Your task to perform on an android device: turn off translation in the chrome app Image 0: 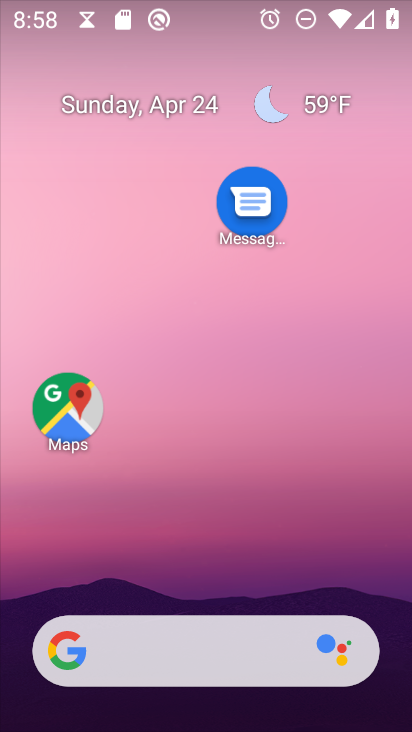
Step 0: drag from (180, 560) to (295, 27)
Your task to perform on an android device: turn off translation in the chrome app Image 1: 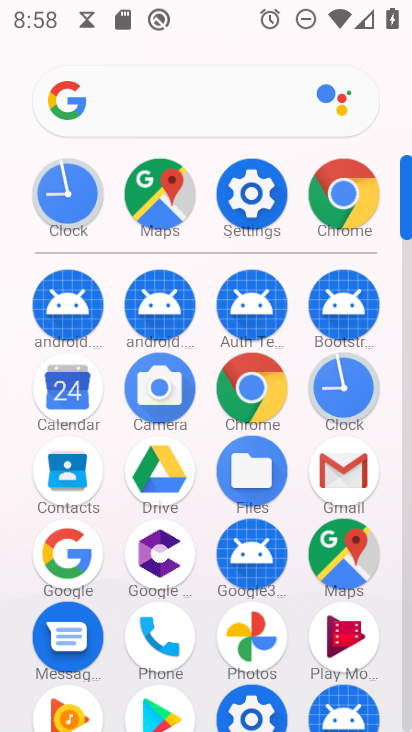
Step 1: click (253, 389)
Your task to perform on an android device: turn off translation in the chrome app Image 2: 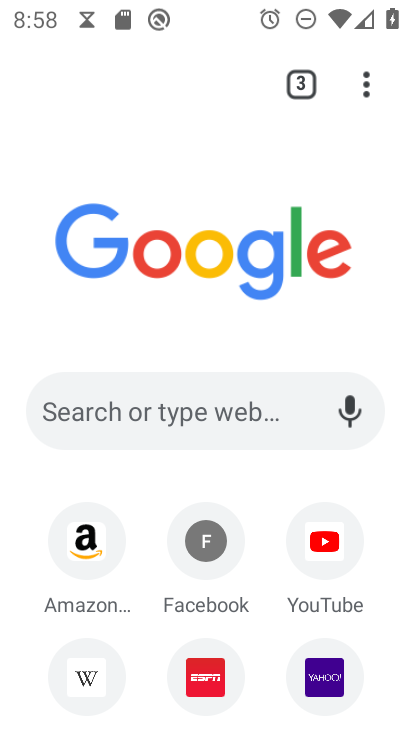
Step 2: drag from (366, 93) to (115, 593)
Your task to perform on an android device: turn off translation in the chrome app Image 3: 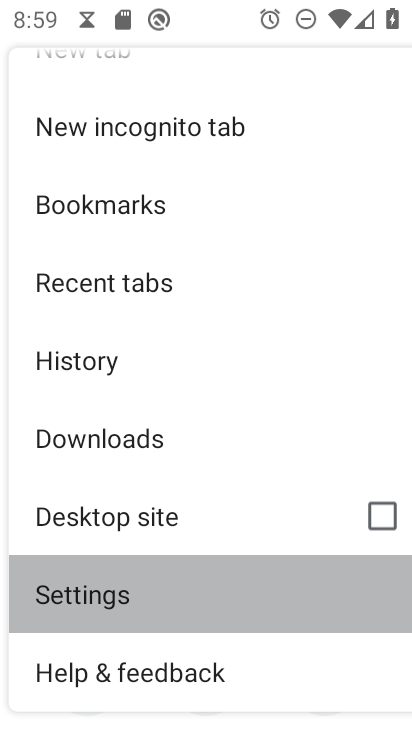
Step 3: click (115, 593)
Your task to perform on an android device: turn off translation in the chrome app Image 4: 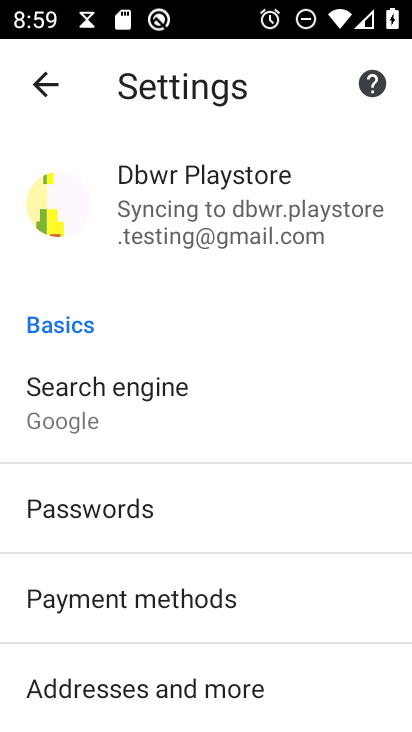
Step 4: drag from (101, 653) to (316, 206)
Your task to perform on an android device: turn off translation in the chrome app Image 5: 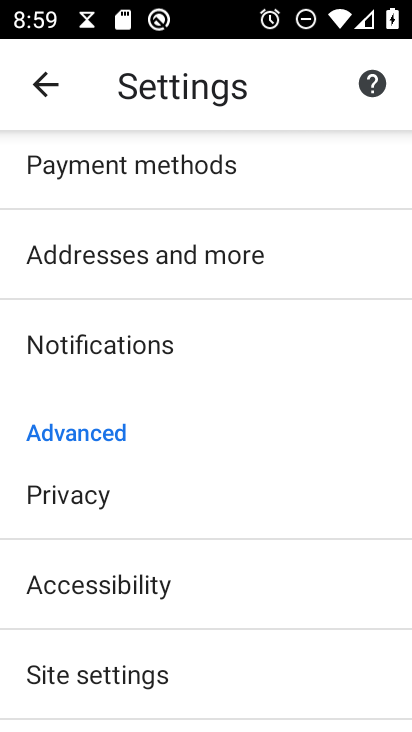
Step 5: drag from (167, 682) to (342, 198)
Your task to perform on an android device: turn off translation in the chrome app Image 6: 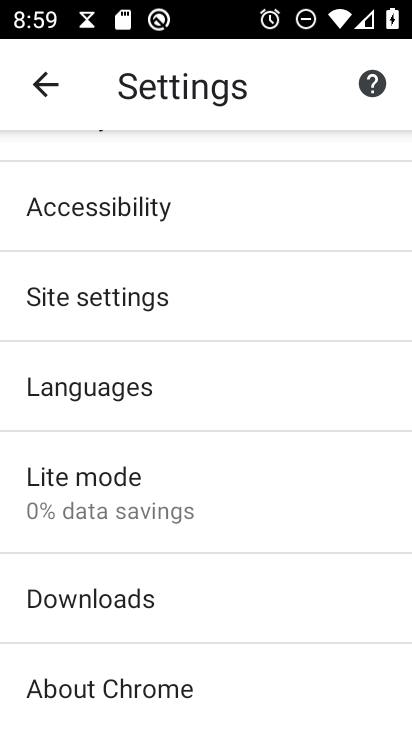
Step 6: click (142, 389)
Your task to perform on an android device: turn off translation in the chrome app Image 7: 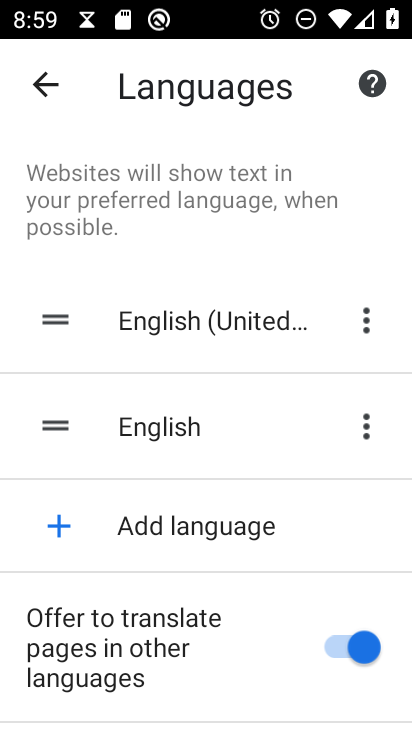
Step 7: click (336, 653)
Your task to perform on an android device: turn off translation in the chrome app Image 8: 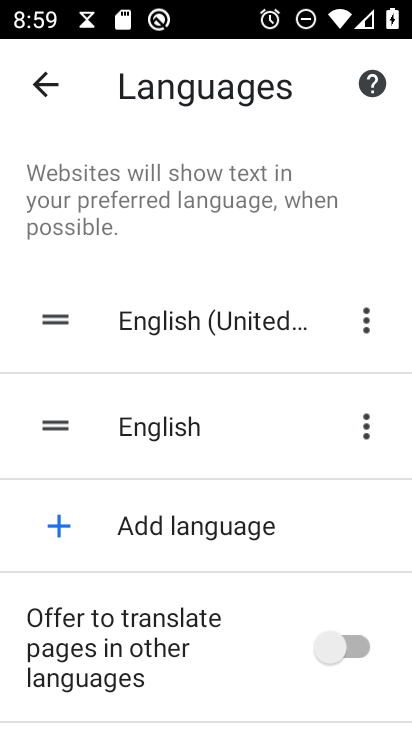
Step 8: task complete